Your task to perform on an android device: open app "Adobe Express: Graphic Design" Image 0: 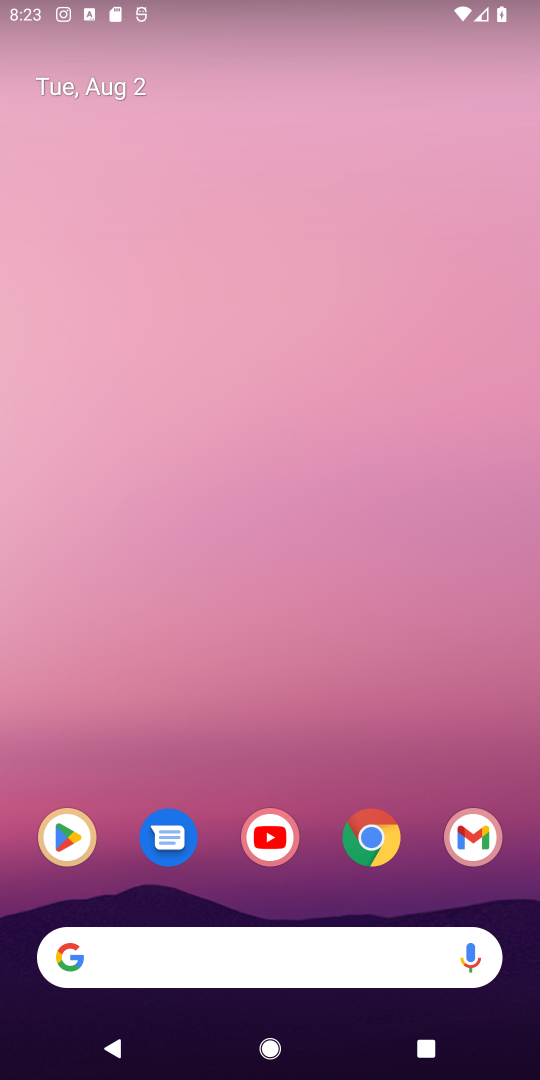
Step 0: click (67, 835)
Your task to perform on an android device: open app "Adobe Express: Graphic Design" Image 1: 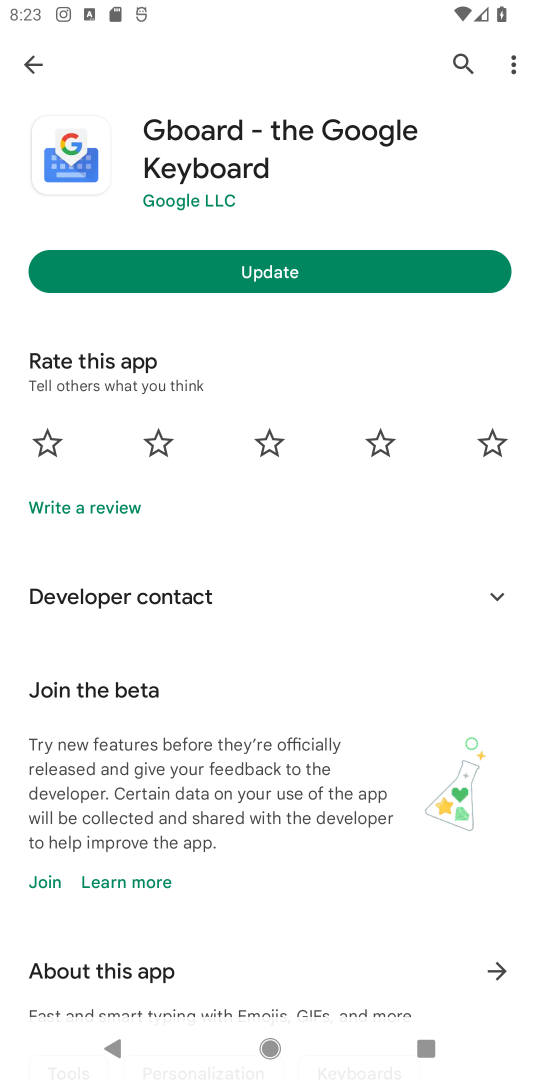
Step 1: click (458, 70)
Your task to perform on an android device: open app "Adobe Express: Graphic Design" Image 2: 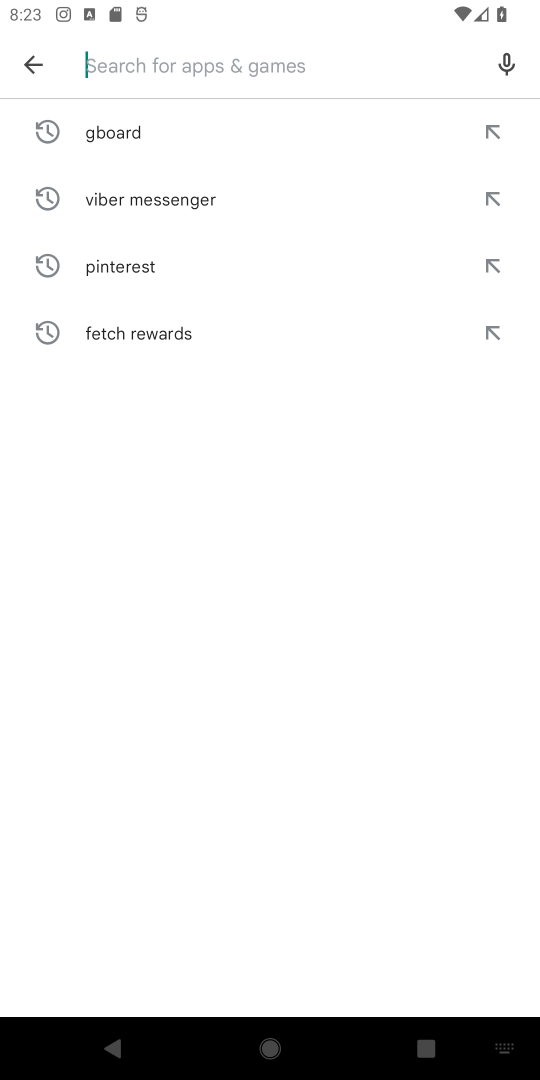
Step 2: click (345, 87)
Your task to perform on an android device: open app "Adobe Express: Graphic Design" Image 3: 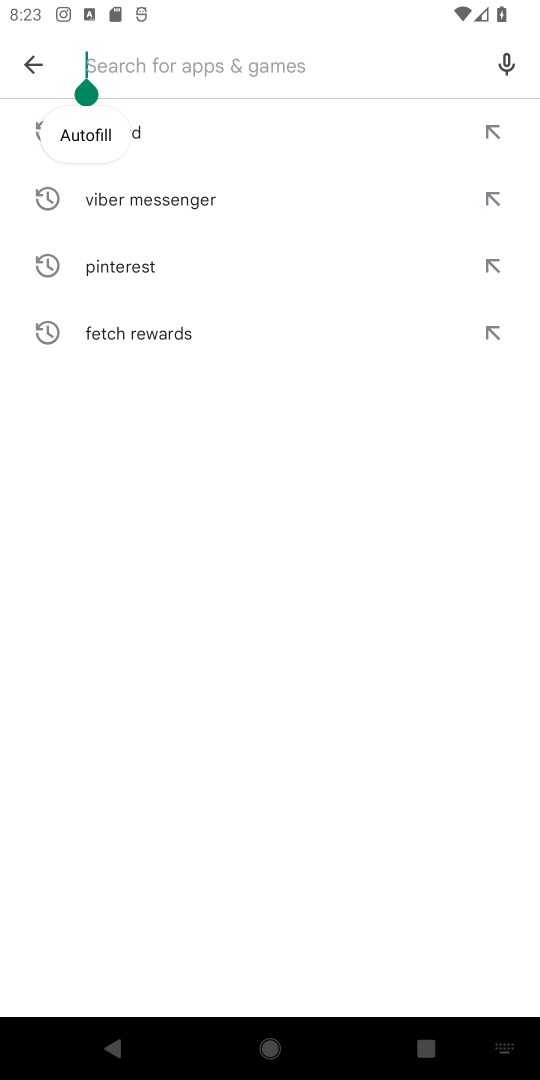
Step 3: type "Adobe Express: Graphic Design"
Your task to perform on an android device: open app "Adobe Express: Graphic Design" Image 4: 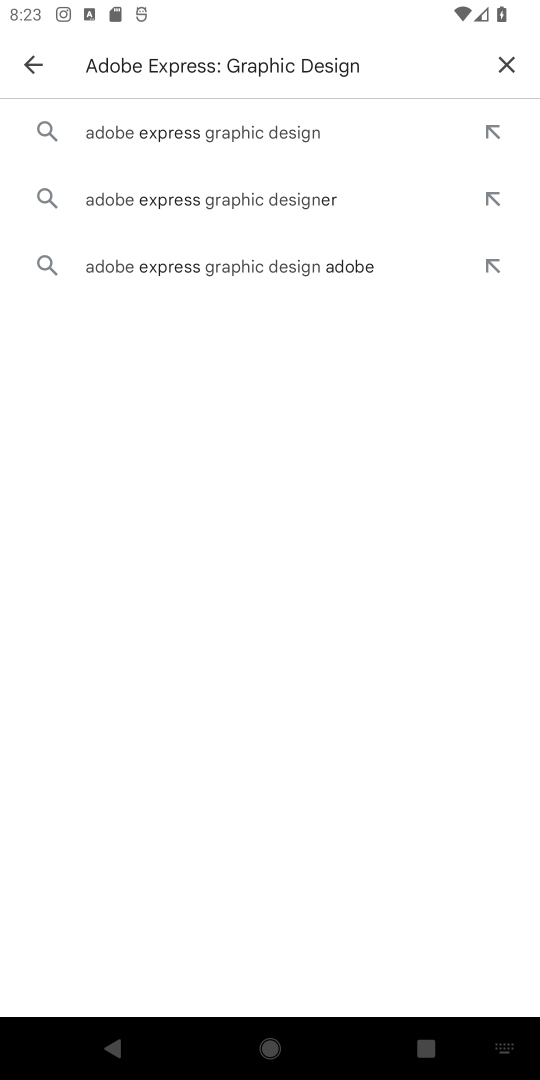
Step 4: click (143, 141)
Your task to perform on an android device: open app "Adobe Express: Graphic Design" Image 5: 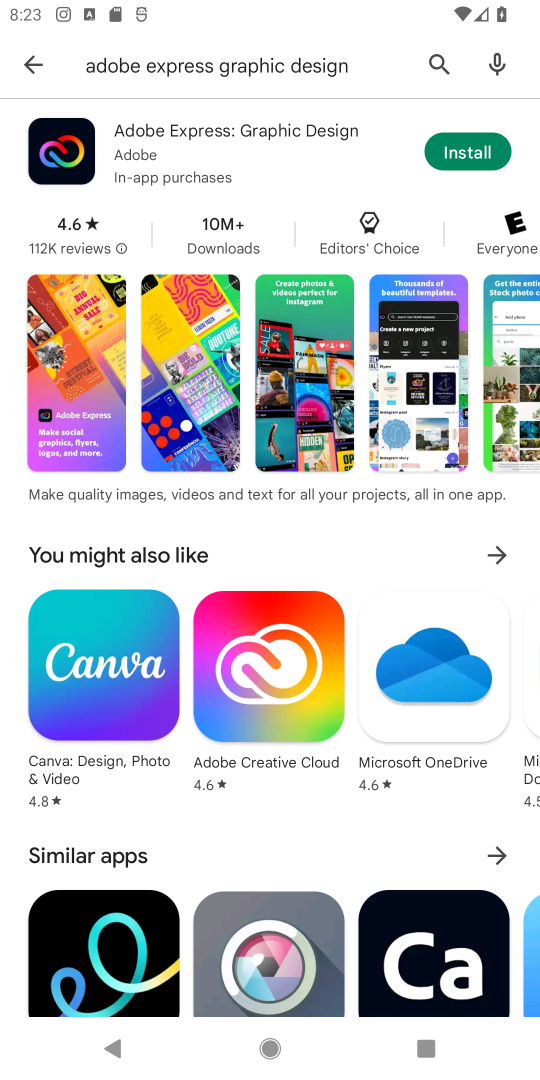
Step 5: task complete